Your task to perform on an android device: change the clock style Image 0: 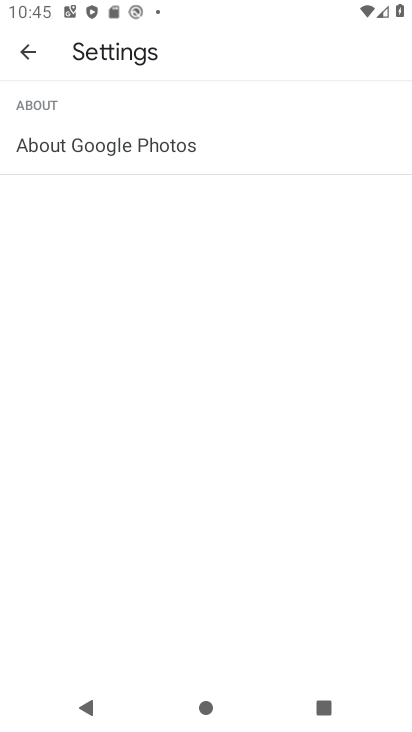
Step 0: press home button
Your task to perform on an android device: change the clock style Image 1: 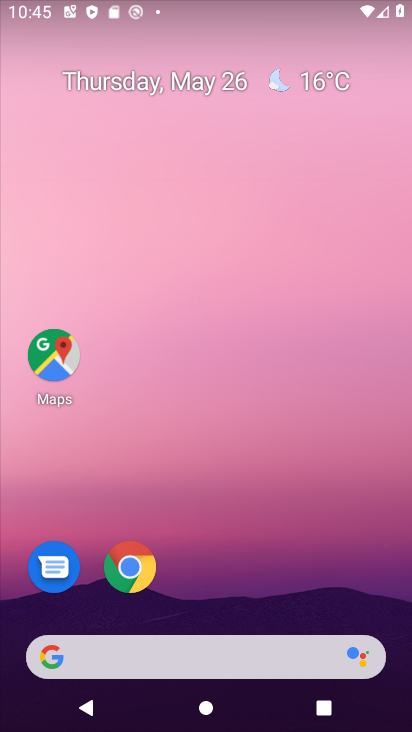
Step 1: drag from (222, 552) to (223, 36)
Your task to perform on an android device: change the clock style Image 2: 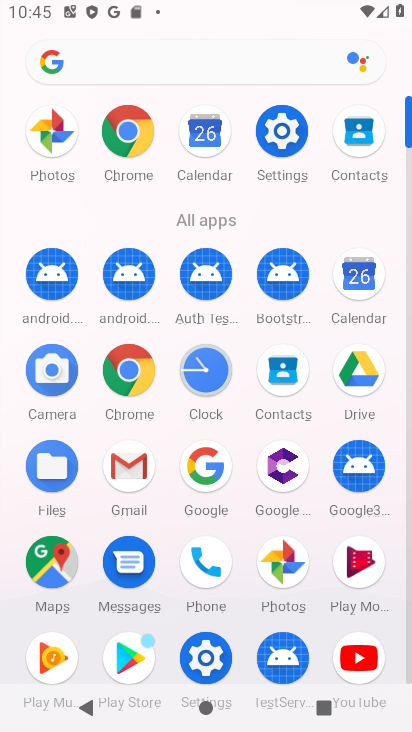
Step 2: click (202, 363)
Your task to perform on an android device: change the clock style Image 3: 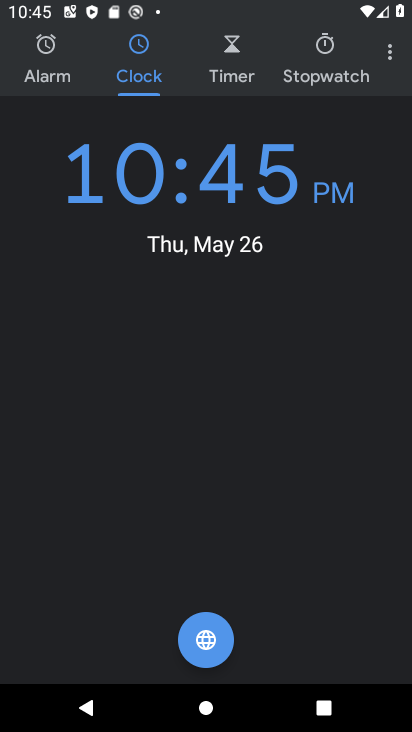
Step 3: click (392, 51)
Your task to perform on an android device: change the clock style Image 4: 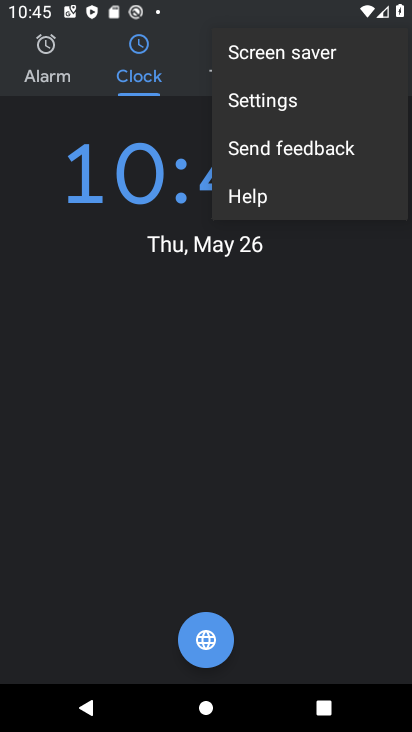
Step 4: click (393, 53)
Your task to perform on an android device: change the clock style Image 5: 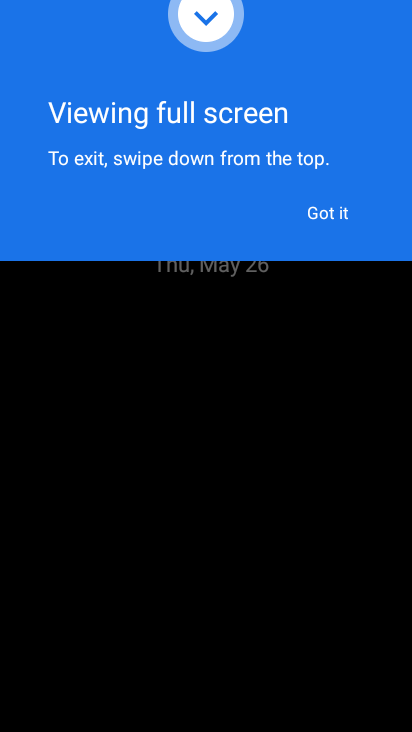
Step 5: click (317, 214)
Your task to perform on an android device: change the clock style Image 6: 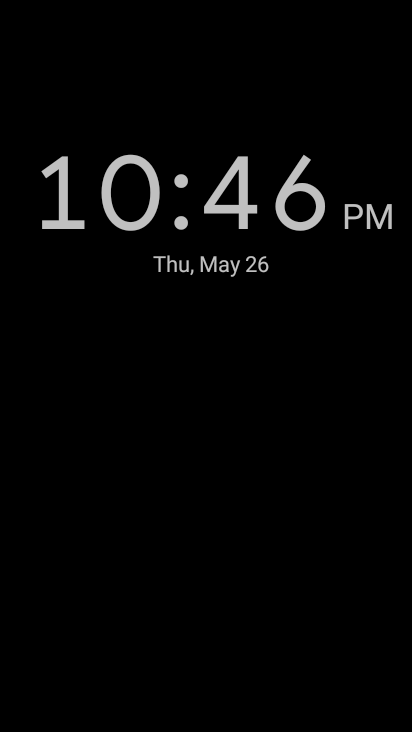
Step 6: click (231, 517)
Your task to perform on an android device: change the clock style Image 7: 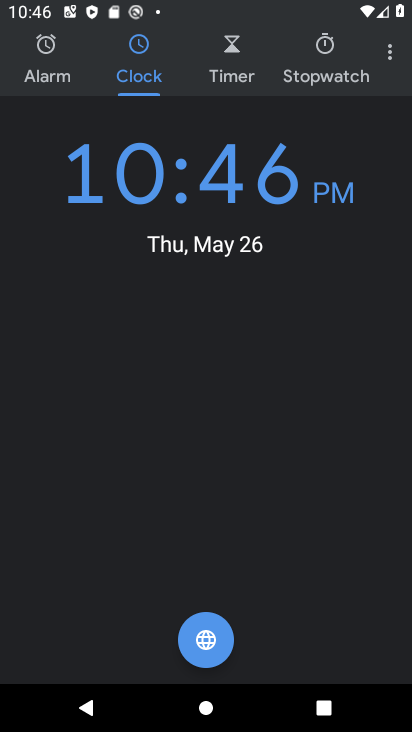
Step 7: click (386, 46)
Your task to perform on an android device: change the clock style Image 8: 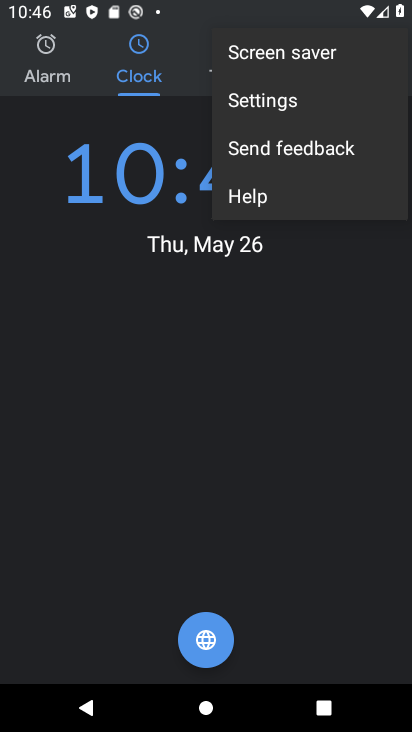
Step 8: click (296, 99)
Your task to perform on an android device: change the clock style Image 9: 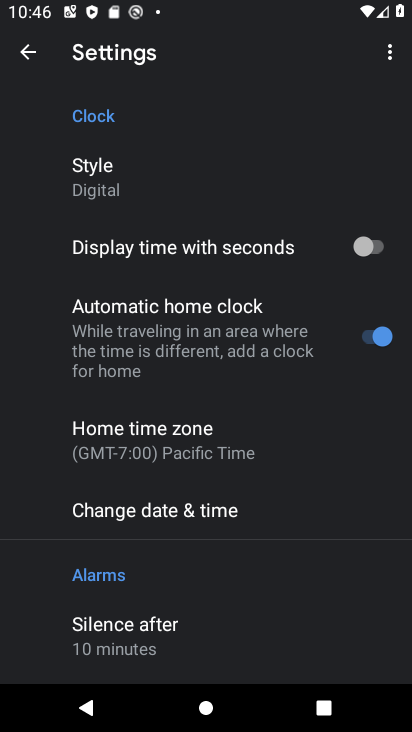
Step 9: click (138, 176)
Your task to perform on an android device: change the clock style Image 10: 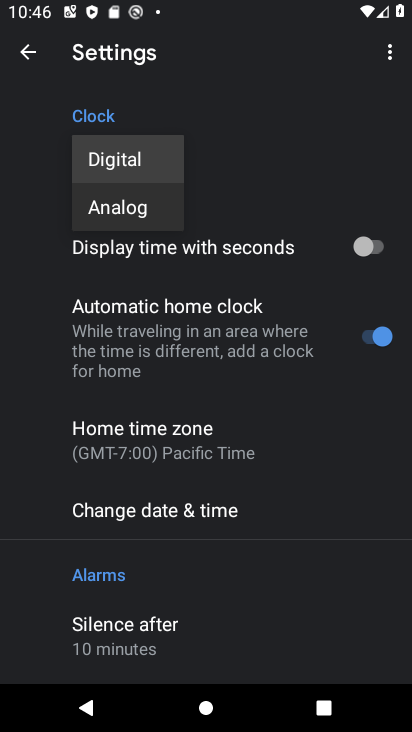
Step 10: click (157, 213)
Your task to perform on an android device: change the clock style Image 11: 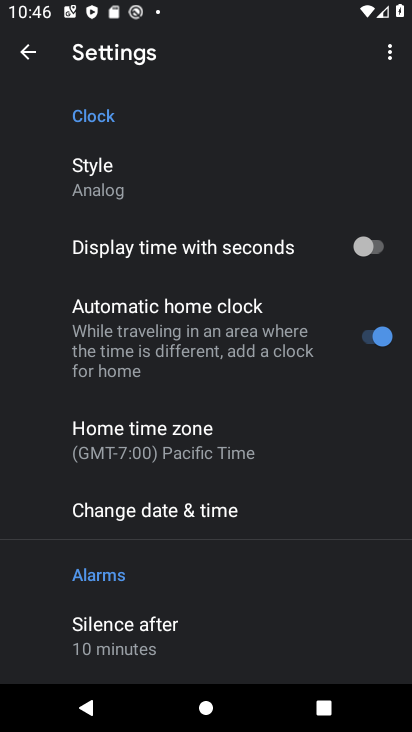
Step 11: task complete